Your task to perform on an android device: Go to Amazon Image 0: 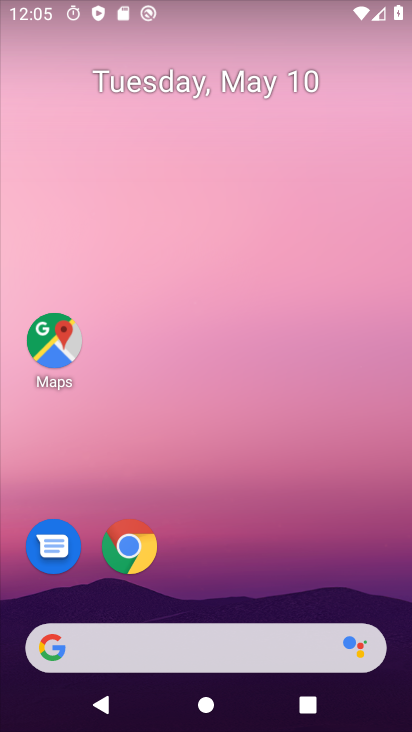
Step 0: click (145, 559)
Your task to perform on an android device: Go to Amazon Image 1: 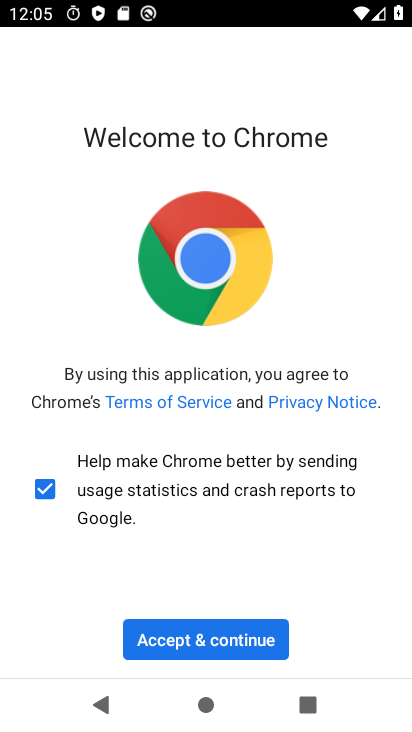
Step 1: click (172, 626)
Your task to perform on an android device: Go to Amazon Image 2: 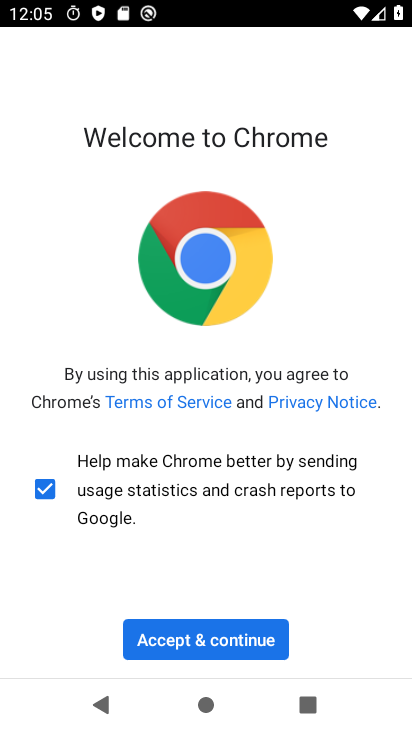
Step 2: click (172, 626)
Your task to perform on an android device: Go to Amazon Image 3: 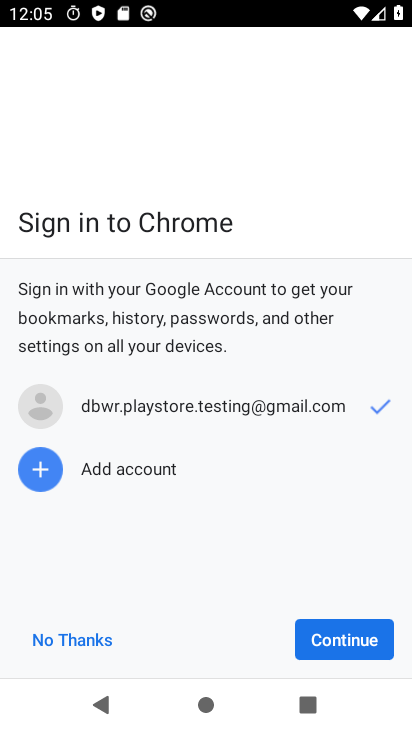
Step 3: click (342, 630)
Your task to perform on an android device: Go to Amazon Image 4: 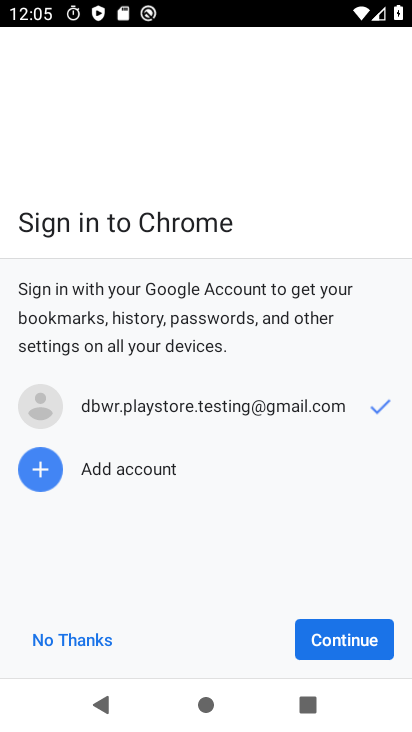
Step 4: click (342, 630)
Your task to perform on an android device: Go to Amazon Image 5: 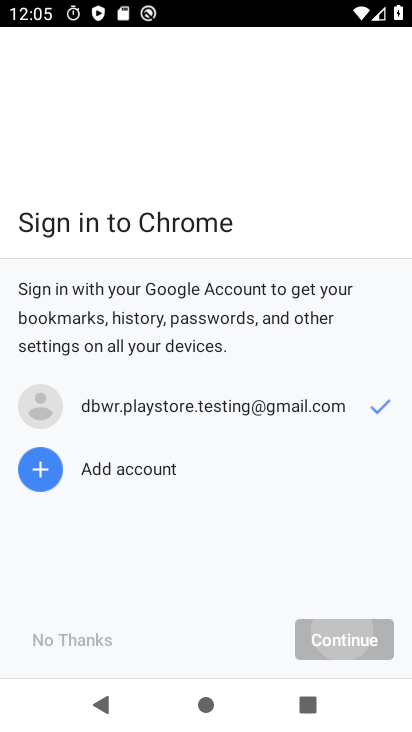
Step 5: click (342, 630)
Your task to perform on an android device: Go to Amazon Image 6: 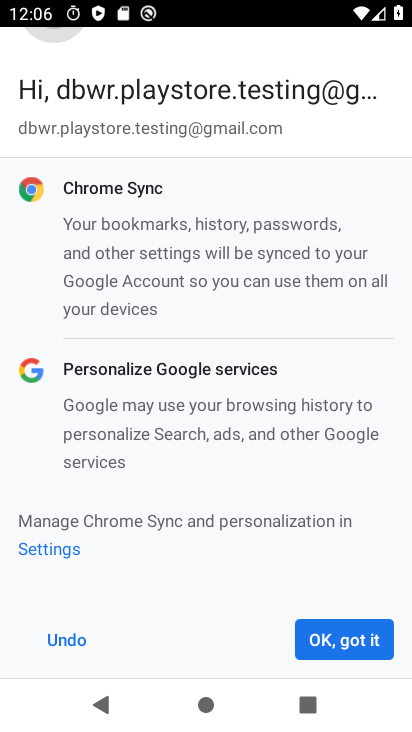
Step 6: click (342, 630)
Your task to perform on an android device: Go to Amazon Image 7: 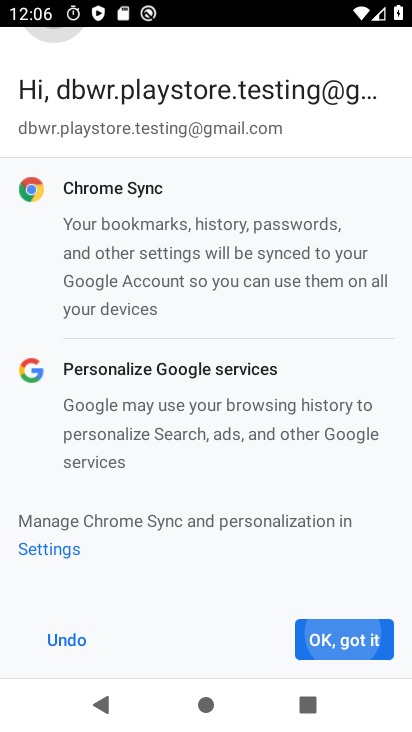
Step 7: click (342, 630)
Your task to perform on an android device: Go to Amazon Image 8: 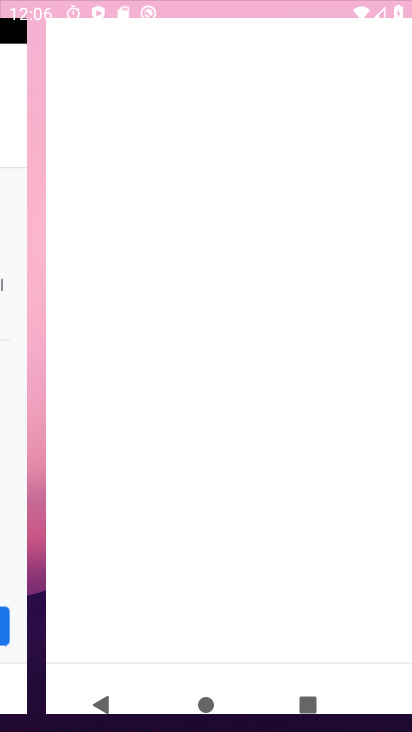
Step 8: click (342, 630)
Your task to perform on an android device: Go to Amazon Image 9: 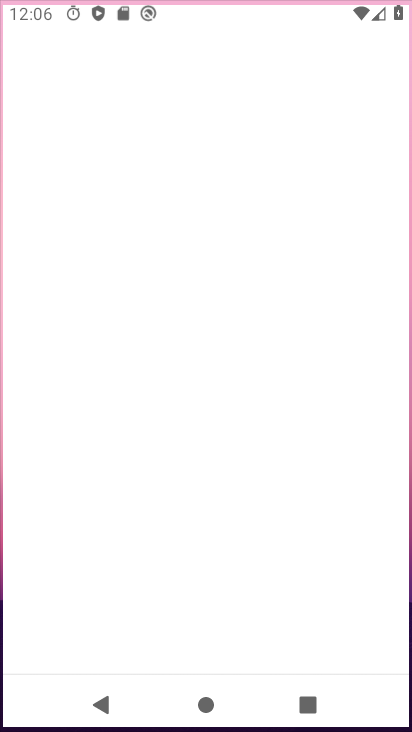
Step 9: click (268, 658)
Your task to perform on an android device: Go to Amazon Image 10: 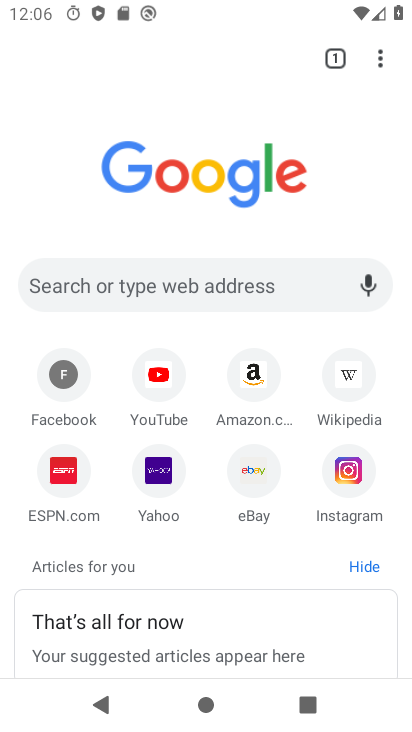
Step 10: click (255, 390)
Your task to perform on an android device: Go to Amazon Image 11: 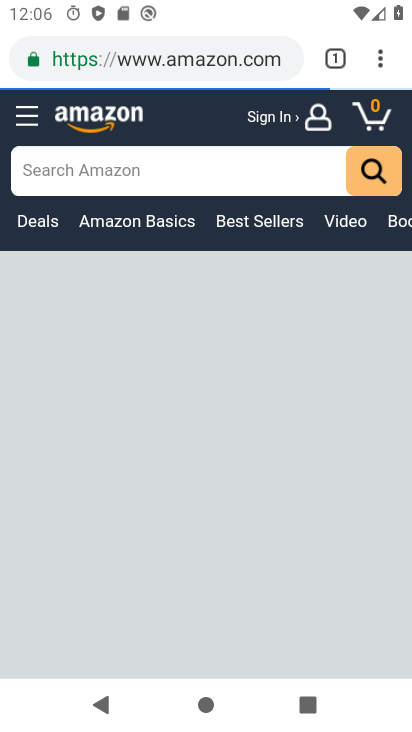
Step 11: task complete